Your task to perform on an android device: turn on priority inbox in the gmail app Image 0: 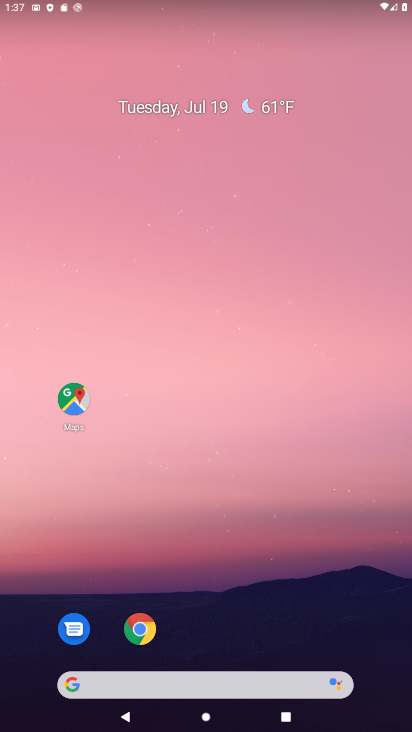
Step 0: drag from (372, 642) to (346, 346)
Your task to perform on an android device: turn on priority inbox in the gmail app Image 1: 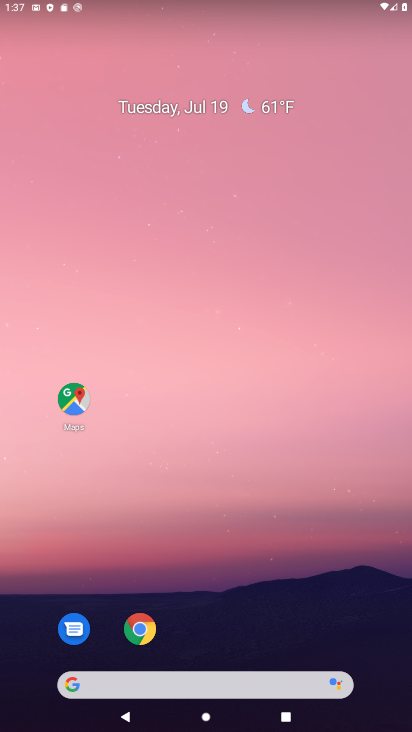
Step 1: drag from (355, 661) to (335, 218)
Your task to perform on an android device: turn on priority inbox in the gmail app Image 2: 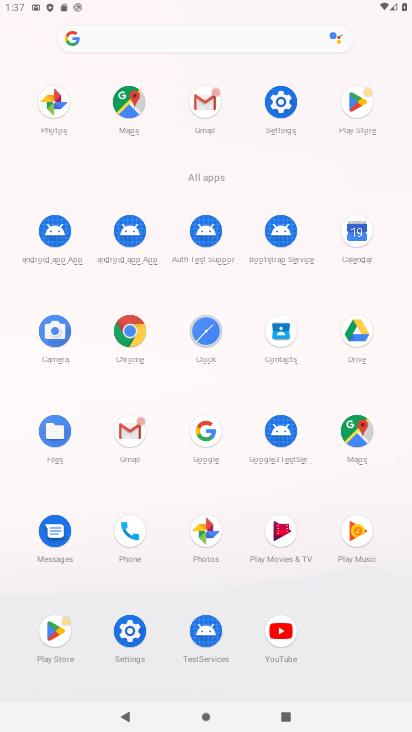
Step 2: click (128, 426)
Your task to perform on an android device: turn on priority inbox in the gmail app Image 3: 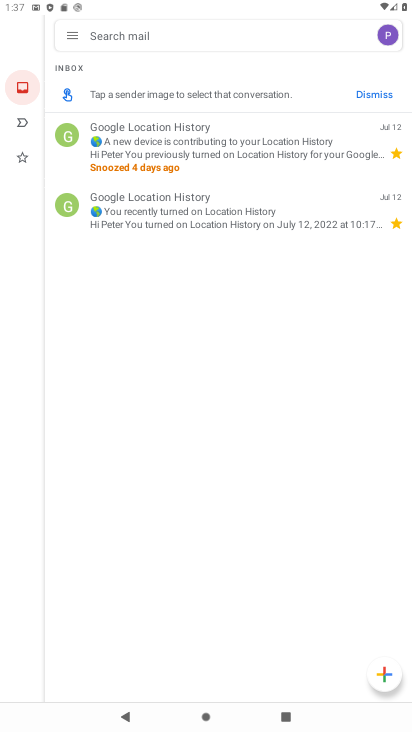
Step 3: click (65, 38)
Your task to perform on an android device: turn on priority inbox in the gmail app Image 4: 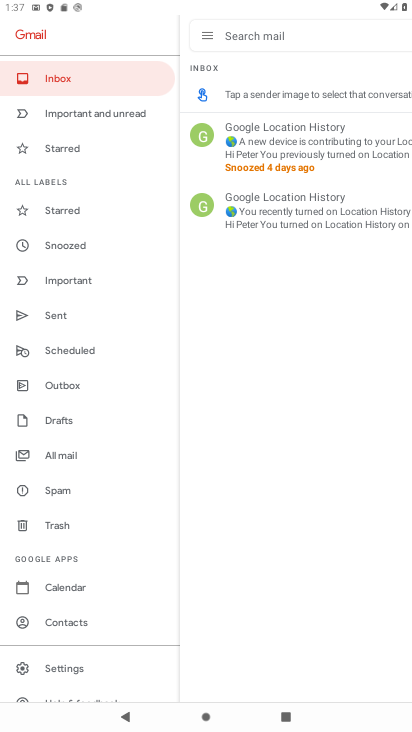
Step 4: click (73, 672)
Your task to perform on an android device: turn on priority inbox in the gmail app Image 5: 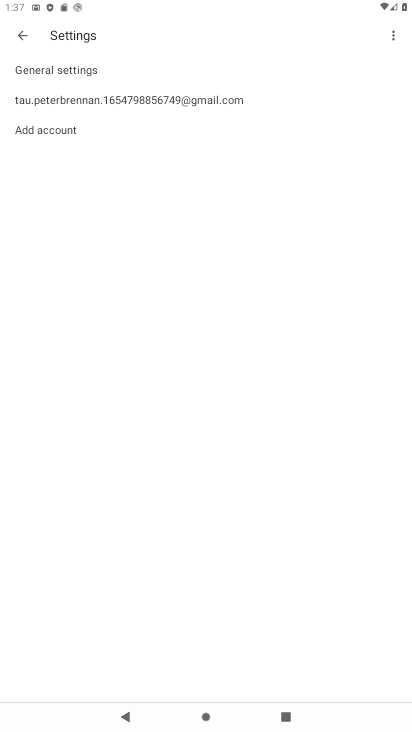
Step 5: click (95, 103)
Your task to perform on an android device: turn on priority inbox in the gmail app Image 6: 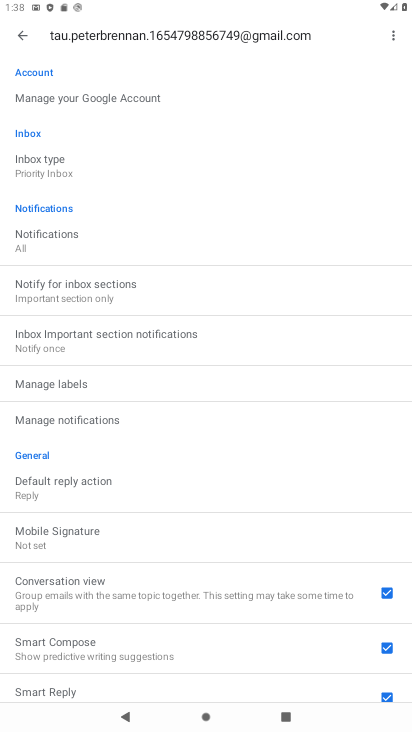
Step 6: click (132, 591)
Your task to perform on an android device: turn on priority inbox in the gmail app Image 7: 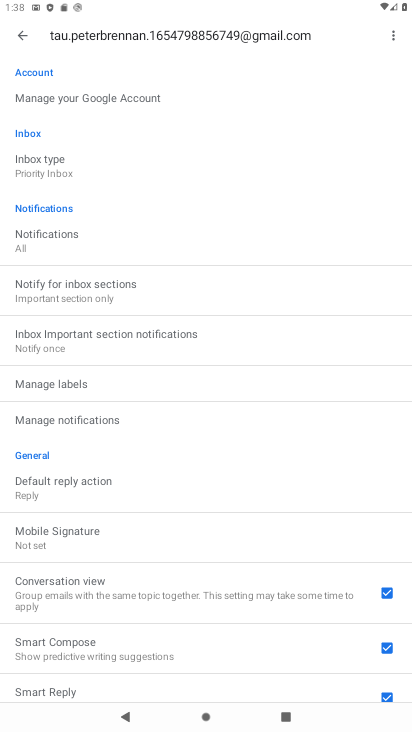
Step 7: click (45, 166)
Your task to perform on an android device: turn on priority inbox in the gmail app Image 8: 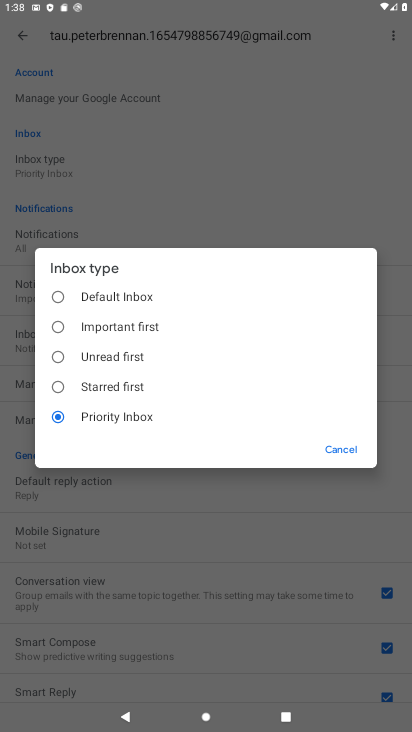
Step 8: task complete